Your task to perform on an android device: toggle improve location accuracy Image 0: 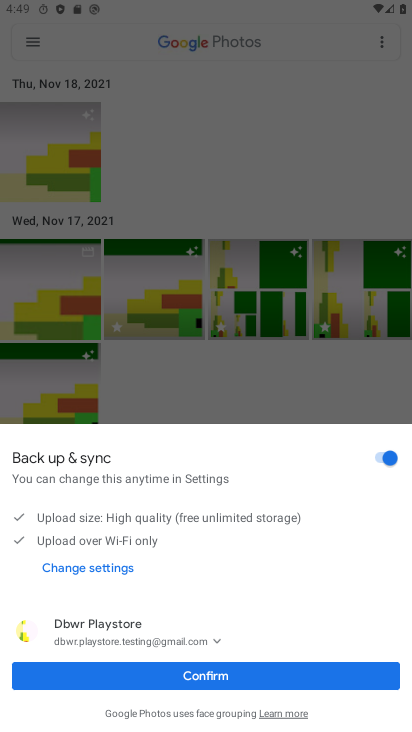
Step 0: press home button
Your task to perform on an android device: toggle improve location accuracy Image 1: 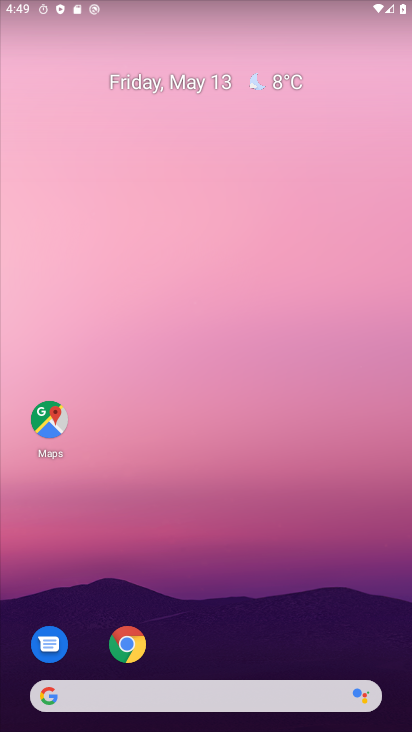
Step 1: drag from (263, 625) to (298, 137)
Your task to perform on an android device: toggle improve location accuracy Image 2: 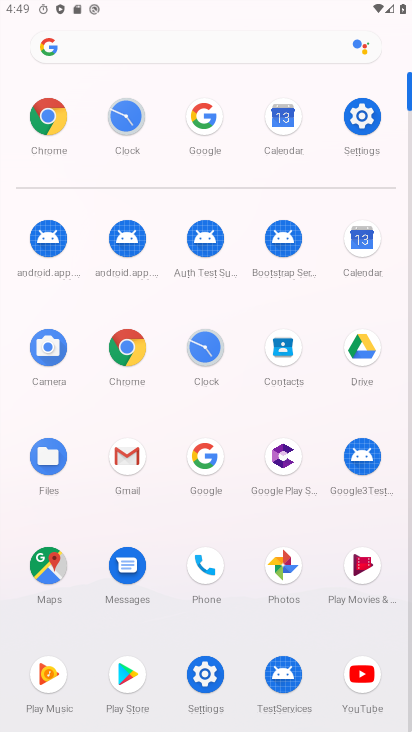
Step 2: click (358, 110)
Your task to perform on an android device: toggle improve location accuracy Image 3: 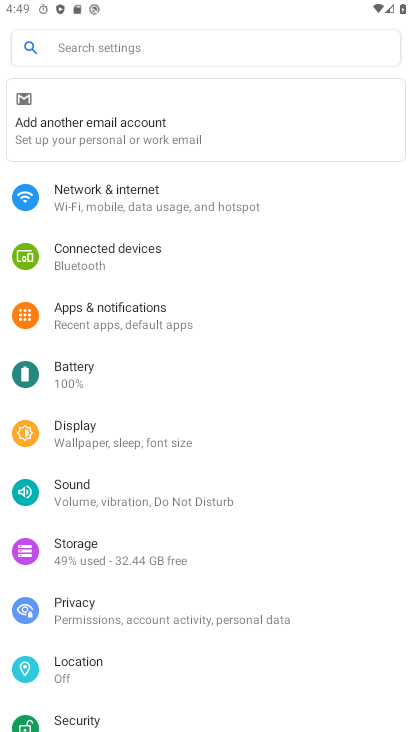
Step 3: click (118, 667)
Your task to perform on an android device: toggle improve location accuracy Image 4: 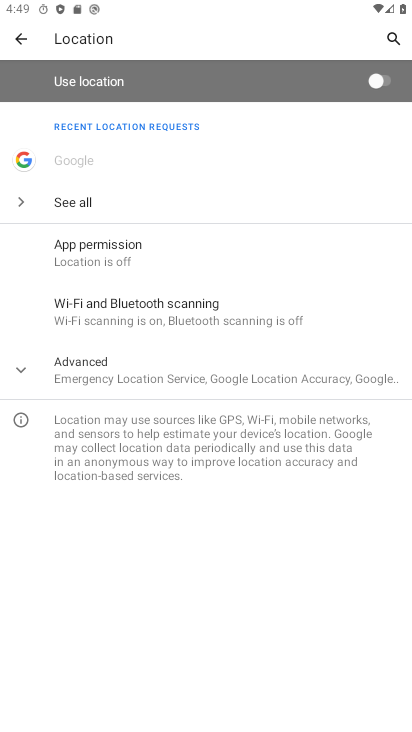
Step 4: click (179, 372)
Your task to perform on an android device: toggle improve location accuracy Image 5: 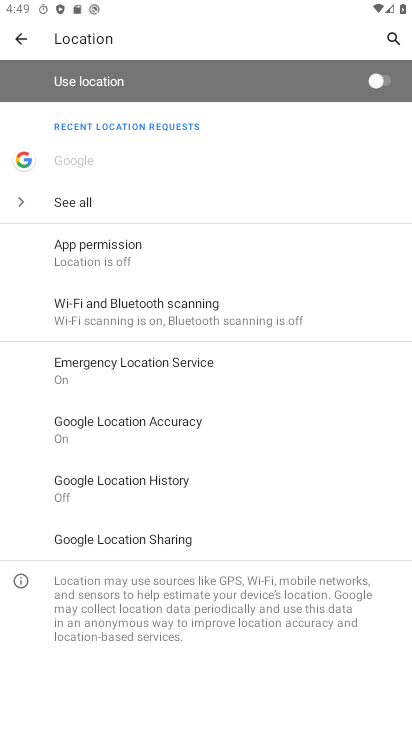
Step 5: click (209, 424)
Your task to perform on an android device: toggle improve location accuracy Image 6: 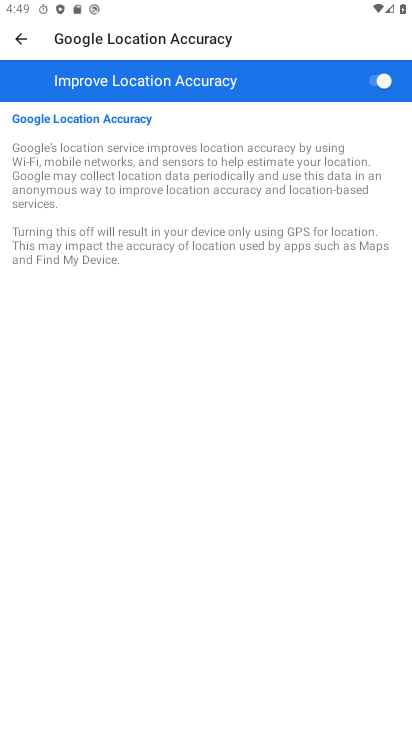
Step 6: click (384, 80)
Your task to perform on an android device: toggle improve location accuracy Image 7: 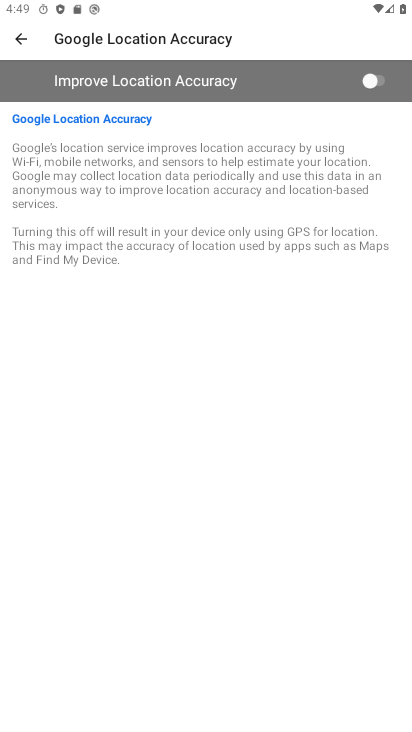
Step 7: task complete